Your task to perform on an android device: toggle improve location accuracy Image 0: 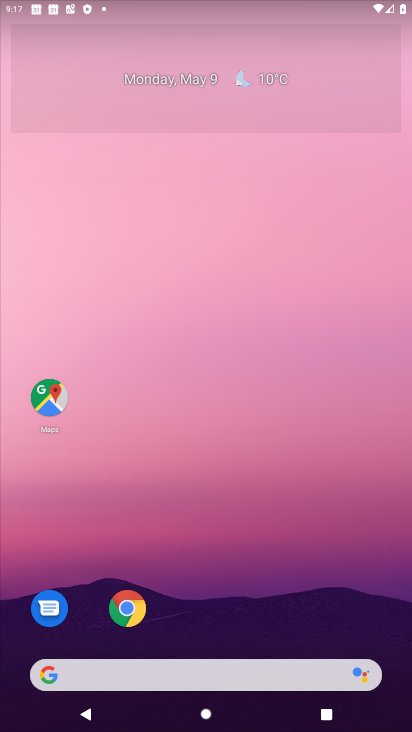
Step 0: drag from (336, 610) to (403, 134)
Your task to perform on an android device: toggle improve location accuracy Image 1: 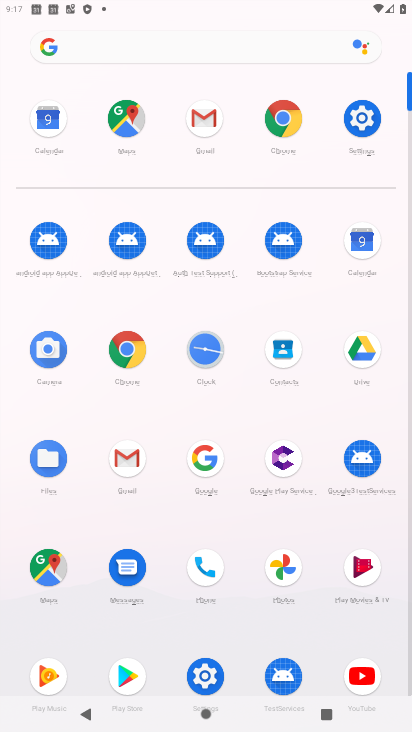
Step 1: click (355, 127)
Your task to perform on an android device: toggle improve location accuracy Image 2: 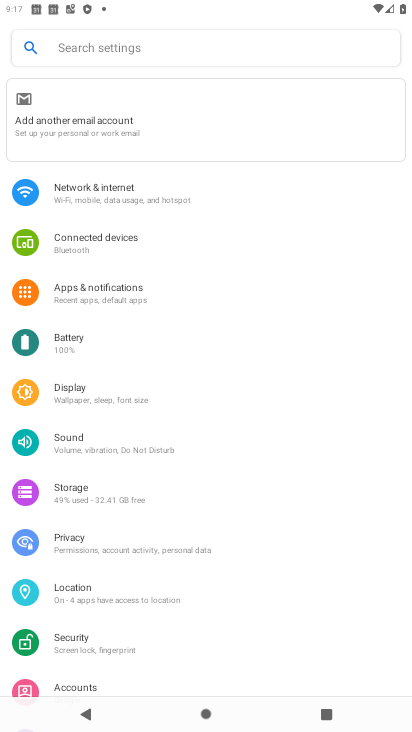
Step 2: click (117, 598)
Your task to perform on an android device: toggle improve location accuracy Image 3: 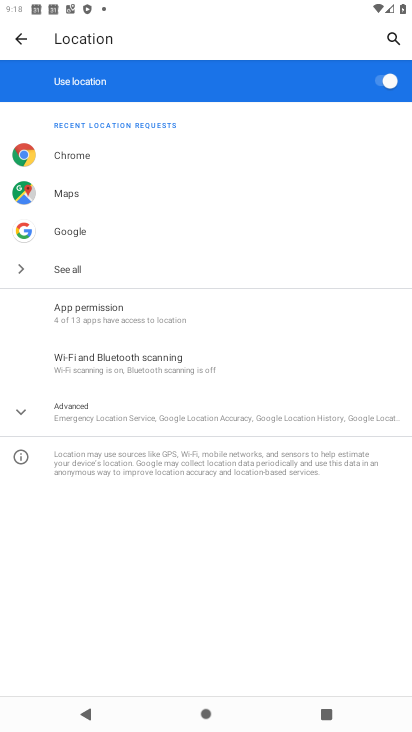
Step 3: click (92, 405)
Your task to perform on an android device: toggle improve location accuracy Image 4: 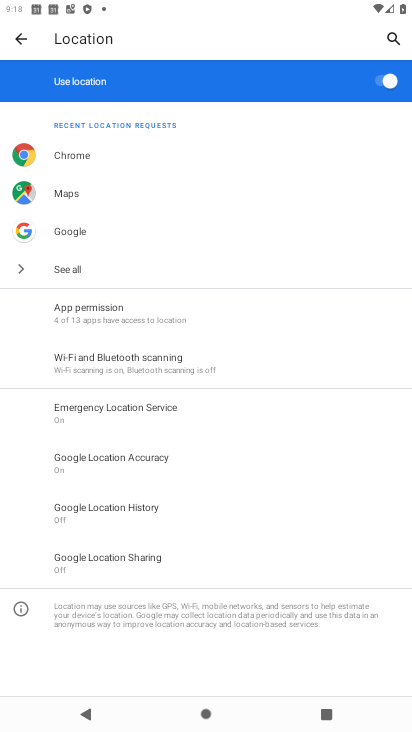
Step 4: click (137, 467)
Your task to perform on an android device: toggle improve location accuracy Image 5: 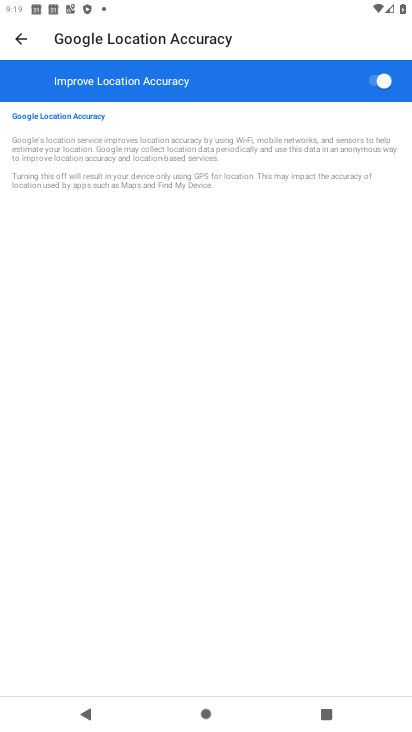
Step 5: task complete